Your task to perform on an android device: change the clock display to digital Image 0: 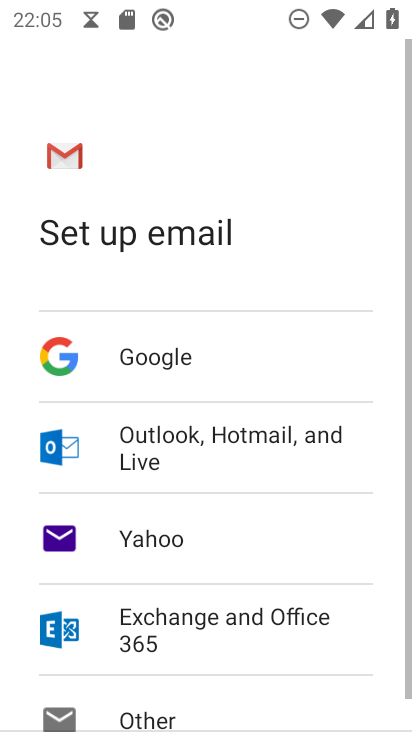
Step 0: press home button
Your task to perform on an android device: change the clock display to digital Image 1: 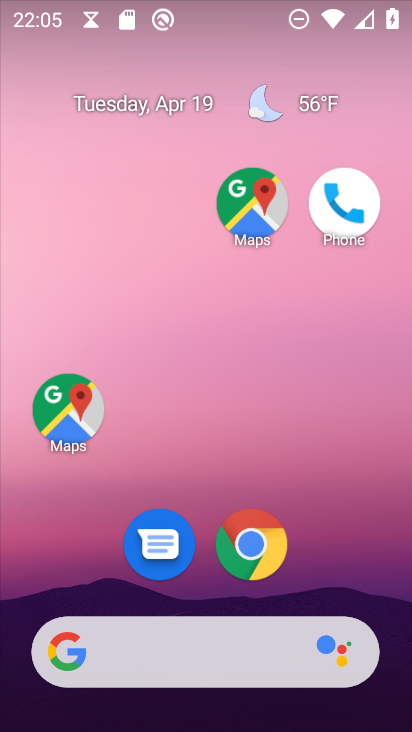
Step 1: drag from (155, 650) to (324, 68)
Your task to perform on an android device: change the clock display to digital Image 2: 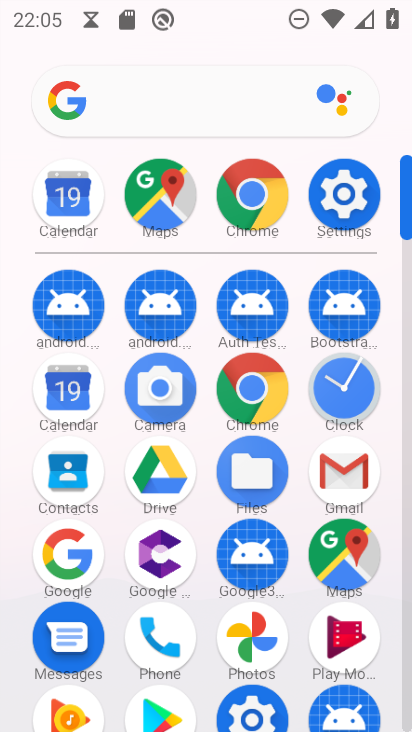
Step 2: click (348, 398)
Your task to perform on an android device: change the clock display to digital Image 3: 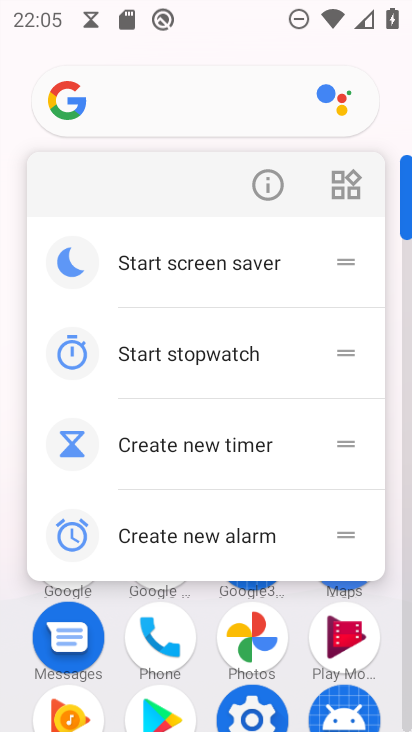
Step 3: drag from (154, 678) to (339, 76)
Your task to perform on an android device: change the clock display to digital Image 4: 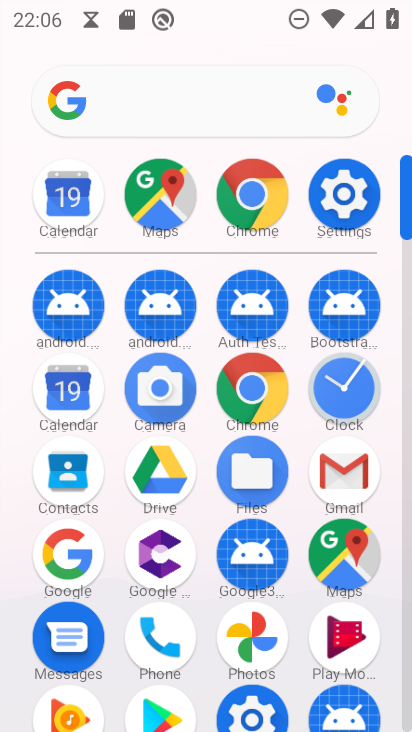
Step 4: click (343, 399)
Your task to perform on an android device: change the clock display to digital Image 5: 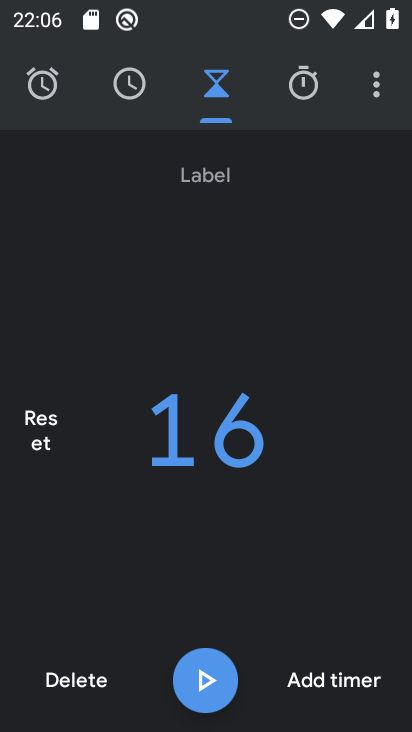
Step 5: click (376, 95)
Your task to perform on an android device: change the clock display to digital Image 6: 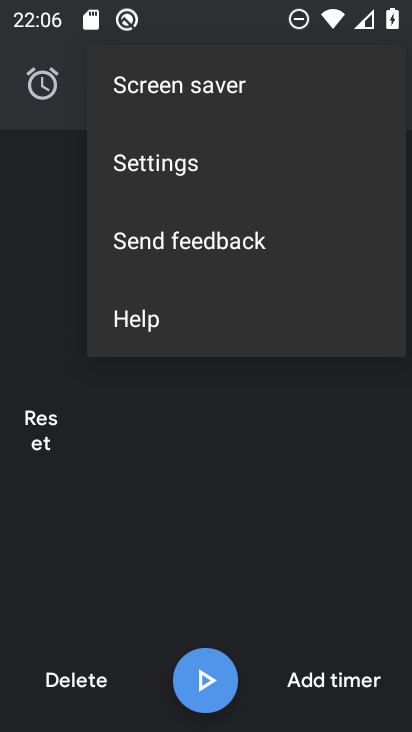
Step 6: click (134, 154)
Your task to perform on an android device: change the clock display to digital Image 7: 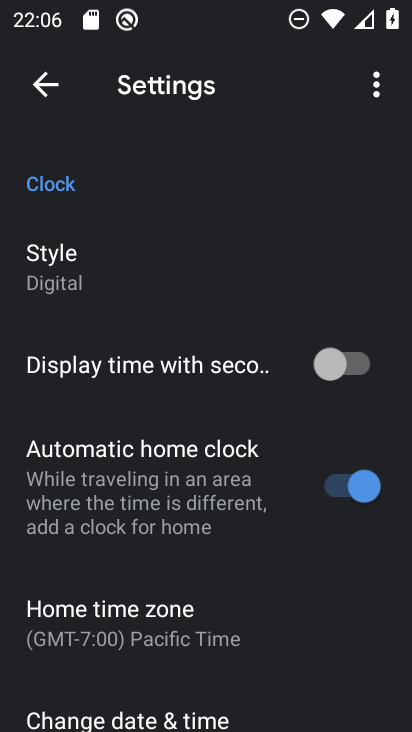
Step 7: task complete